Your task to perform on an android device: change your default location settings in chrome Image 0: 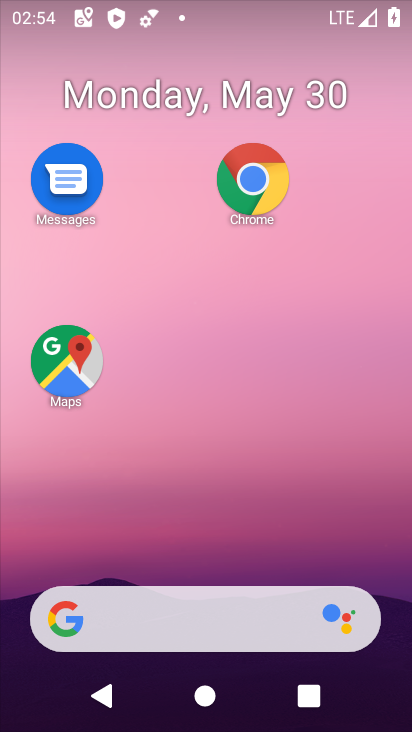
Step 0: drag from (224, 556) to (163, 28)
Your task to perform on an android device: change your default location settings in chrome Image 1: 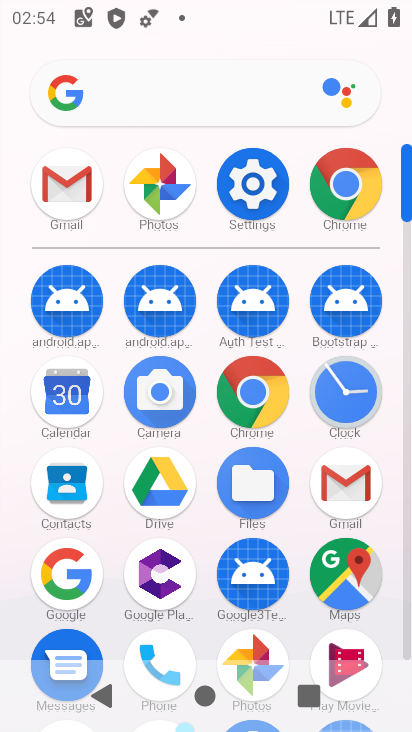
Step 1: click (344, 174)
Your task to perform on an android device: change your default location settings in chrome Image 2: 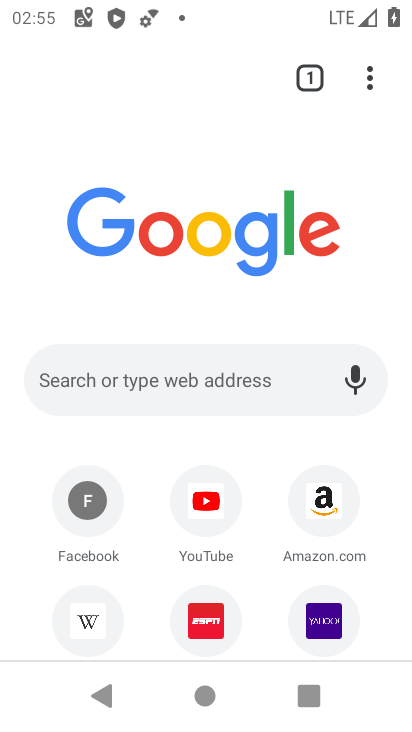
Step 2: click (377, 74)
Your task to perform on an android device: change your default location settings in chrome Image 3: 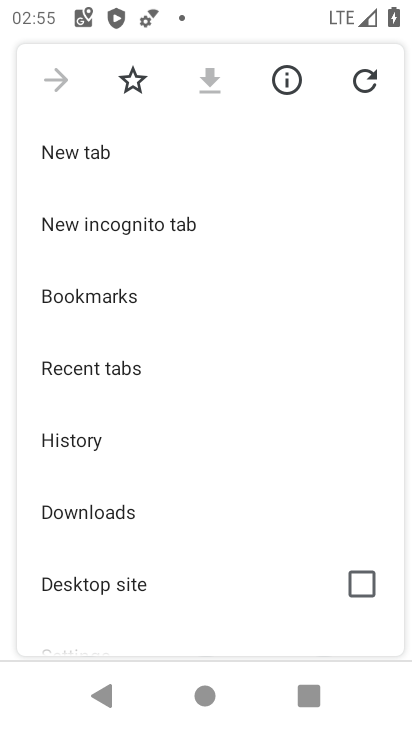
Step 3: drag from (158, 561) to (109, 221)
Your task to perform on an android device: change your default location settings in chrome Image 4: 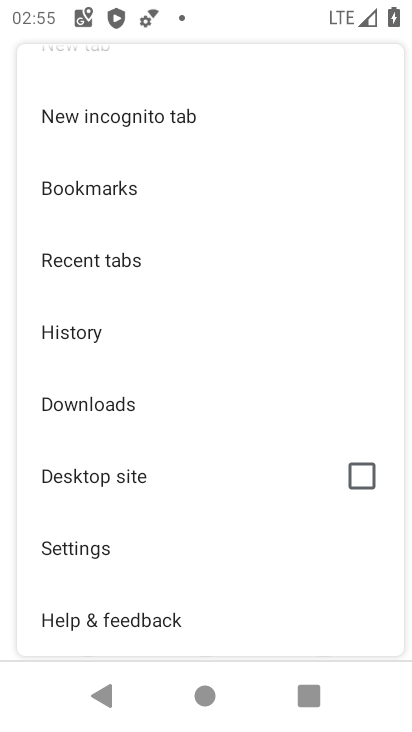
Step 4: click (88, 557)
Your task to perform on an android device: change your default location settings in chrome Image 5: 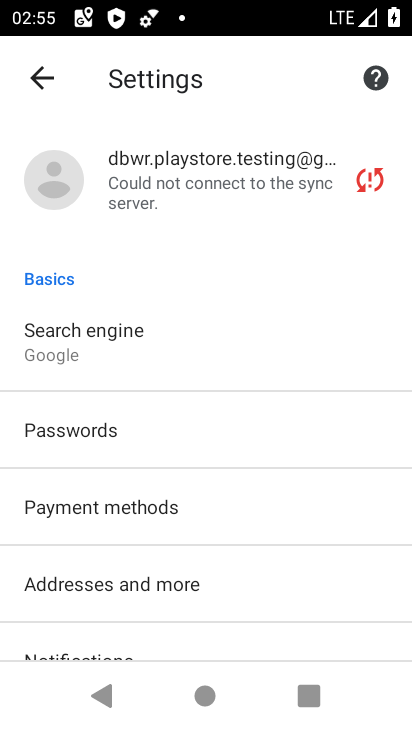
Step 5: drag from (251, 621) to (208, 150)
Your task to perform on an android device: change your default location settings in chrome Image 6: 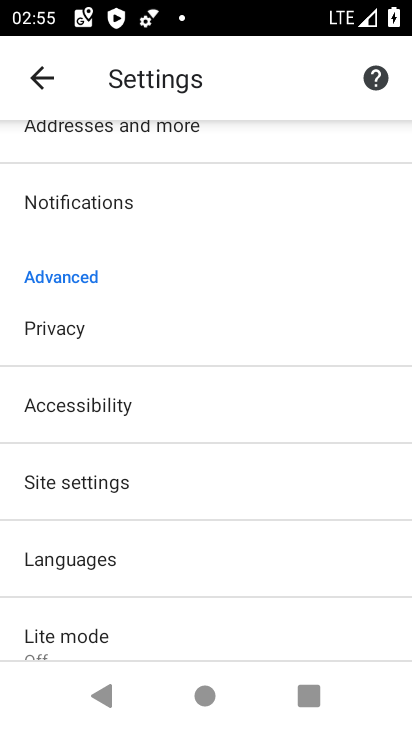
Step 6: drag from (84, 562) to (78, 257)
Your task to perform on an android device: change your default location settings in chrome Image 7: 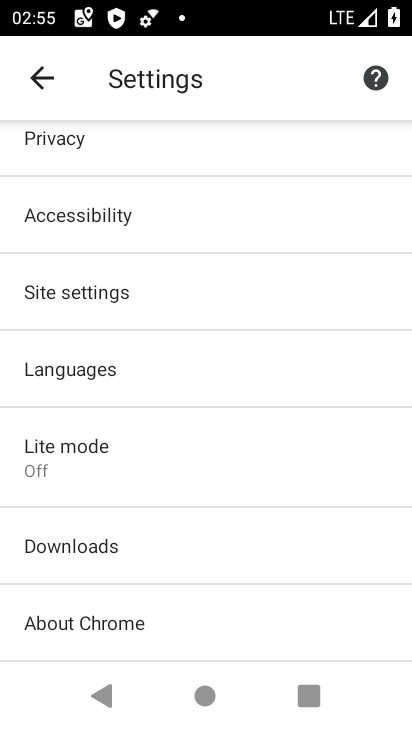
Step 7: click (65, 299)
Your task to perform on an android device: change your default location settings in chrome Image 8: 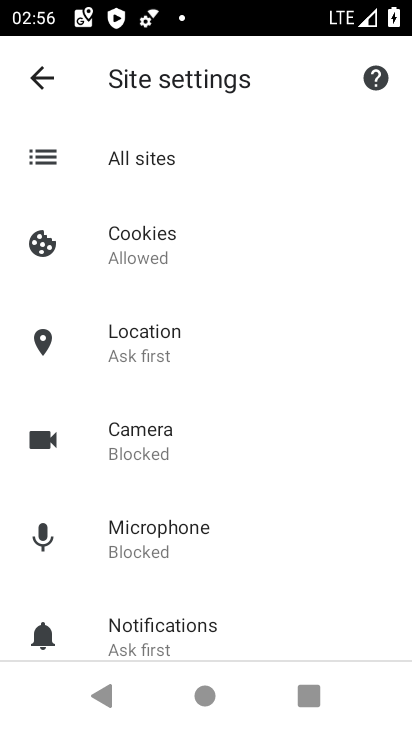
Step 8: drag from (183, 606) to (173, 279)
Your task to perform on an android device: change your default location settings in chrome Image 9: 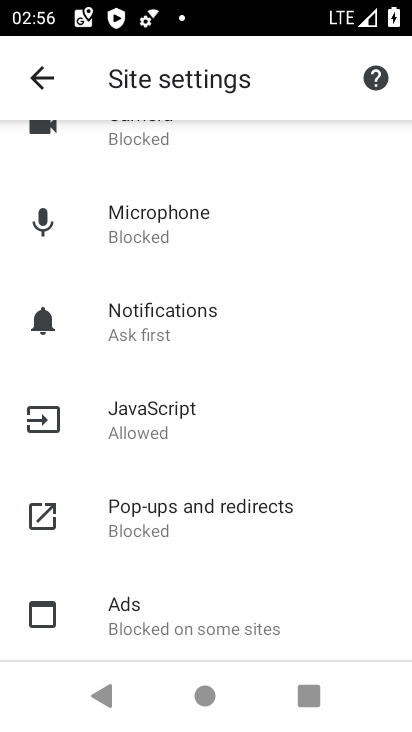
Step 9: drag from (139, 339) to (158, 687)
Your task to perform on an android device: change your default location settings in chrome Image 10: 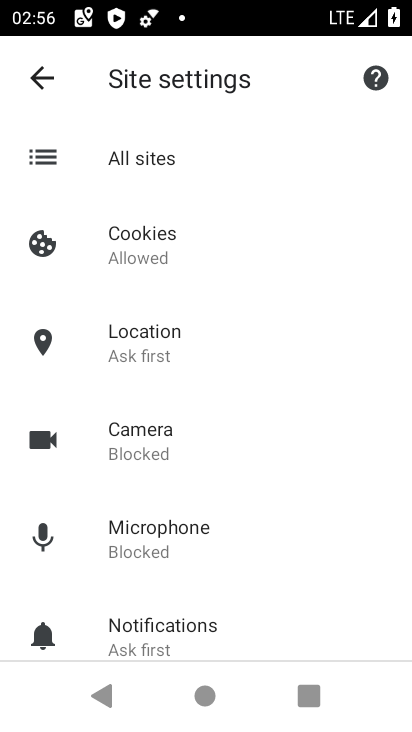
Step 10: drag from (206, 441) to (197, 123)
Your task to perform on an android device: change your default location settings in chrome Image 11: 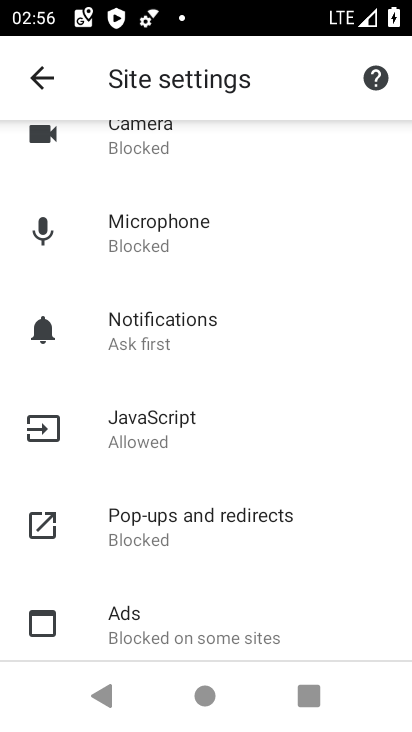
Step 11: drag from (179, 487) to (184, 211)
Your task to perform on an android device: change your default location settings in chrome Image 12: 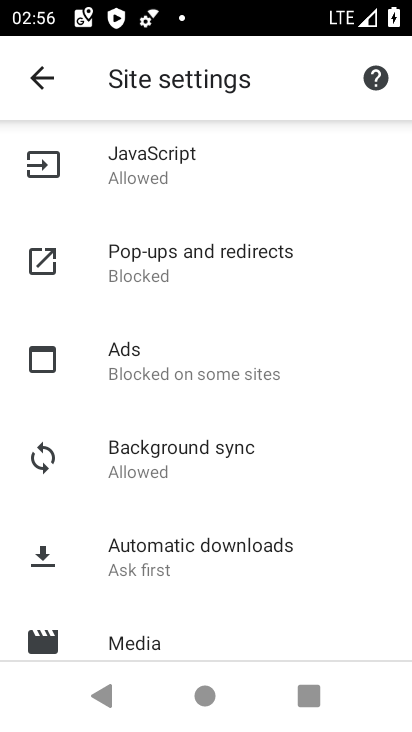
Step 12: drag from (189, 321) to (188, 645)
Your task to perform on an android device: change your default location settings in chrome Image 13: 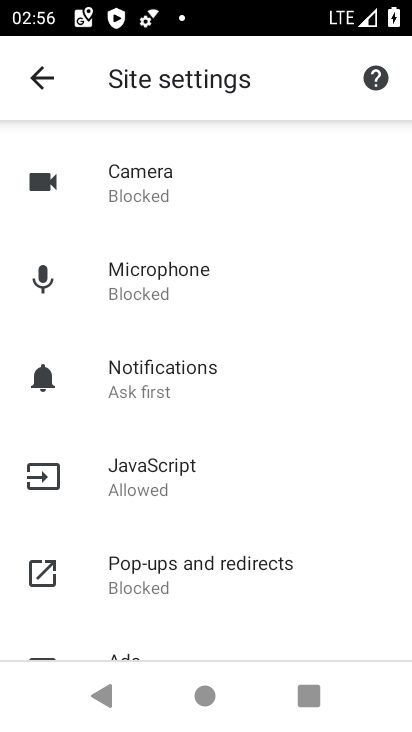
Step 13: drag from (193, 431) to (215, 281)
Your task to perform on an android device: change your default location settings in chrome Image 14: 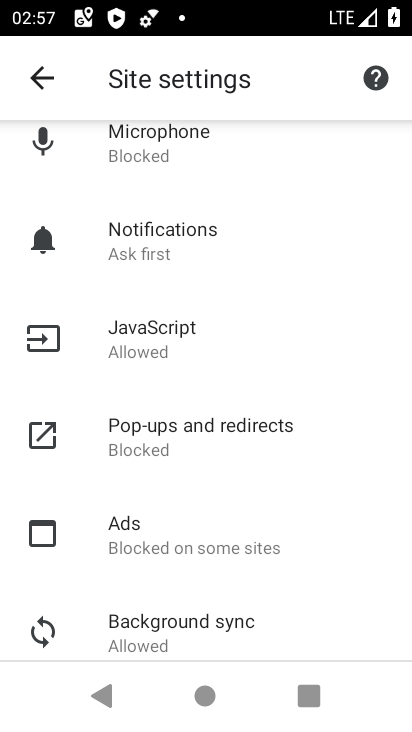
Step 14: click (42, 87)
Your task to perform on an android device: change your default location settings in chrome Image 15: 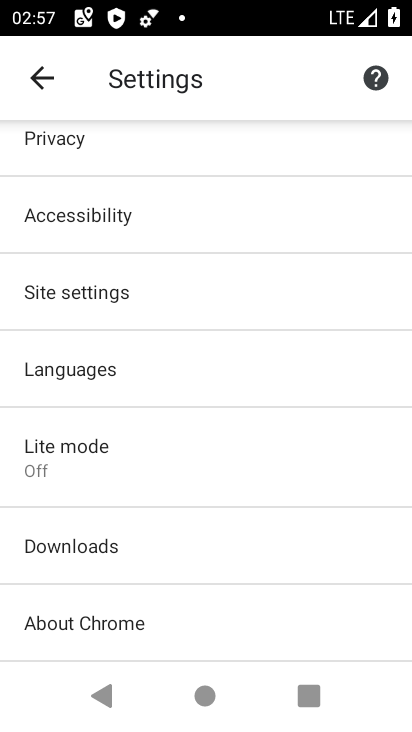
Step 15: drag from (99, 583) to (102, 242)
Your task to perform on an android device: change your default location settings in chrome Image 16: 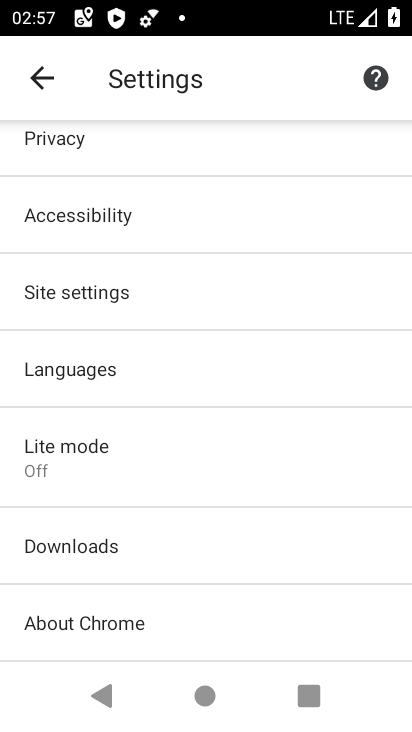
Step 16: drag from (152, 288) to (155, 666)
Your task to perform on an android device: change your default location settings in chrome Image 17: 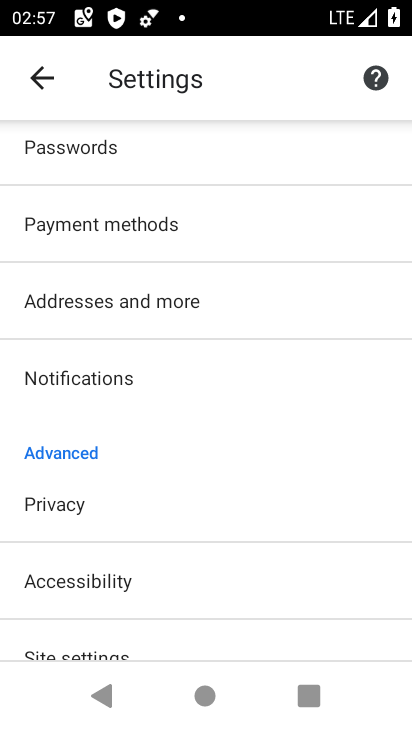
Step 17: drag from (83, 600) to (110, 278)
Your task to perform on an android device: change your default location settings in chrome Image 18: 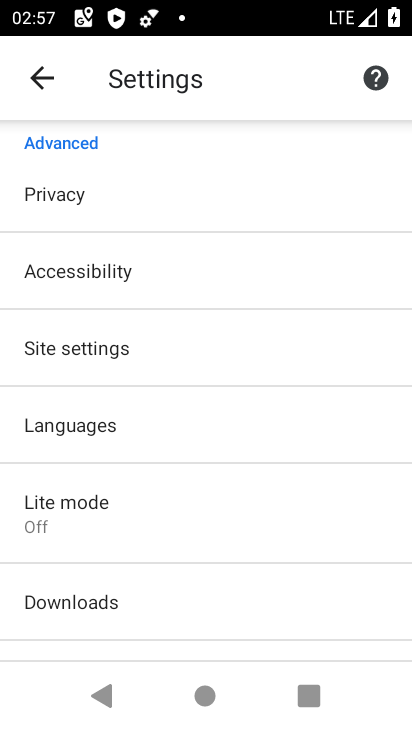
Step 18: click (72, 355)
Your task to perform on an android device: change your default location settings in chrome Image 19: 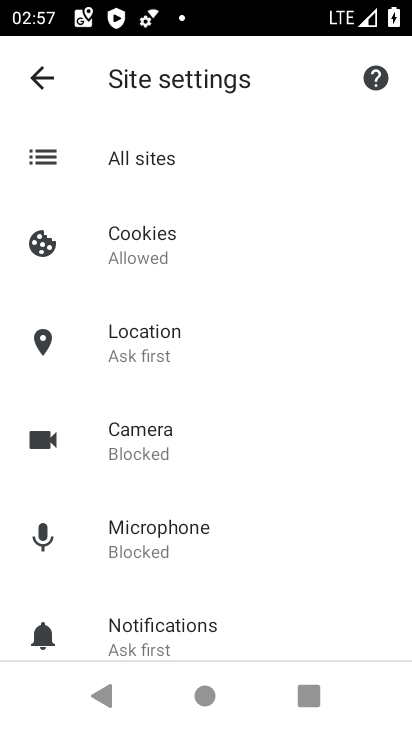
Step 19: click (152, 345)
Your task to perform on an android device: change your default location settings in chrome Image 20: 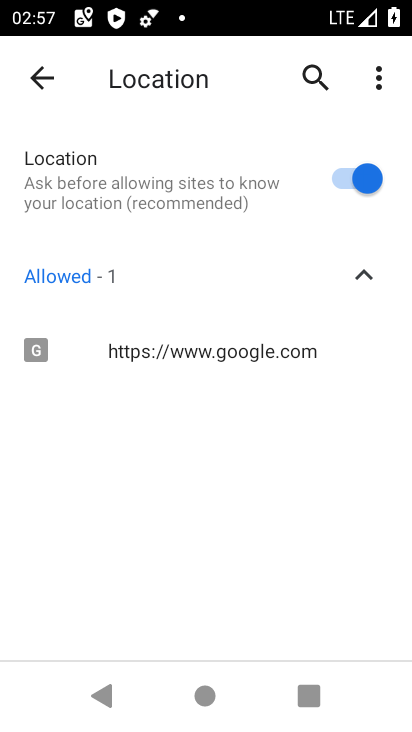
Step 20: click (350, 183)
Your task to perform on an android device: change your default location settings in chrome Image 21: 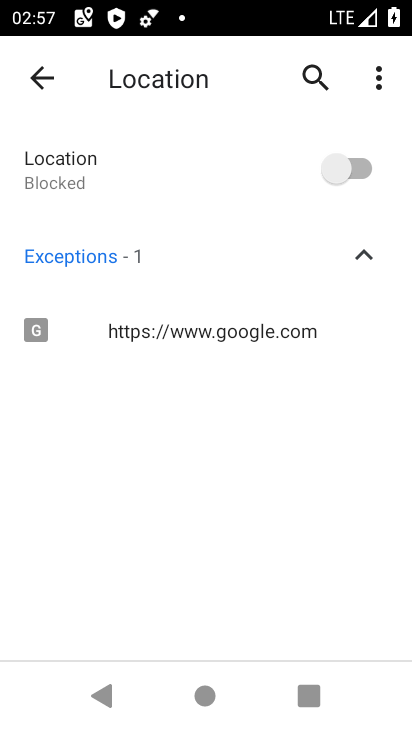
Step 21: task complete